Your task to perform on an android device: see tabs open on other devices in the chrome app Image 0: 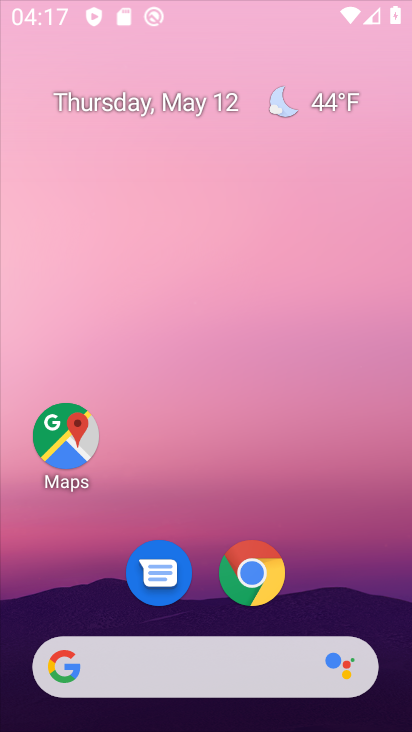
Step 0: press home button
Your task to perform on an android device: see tabs open on other devices in the chrome app Image 1: 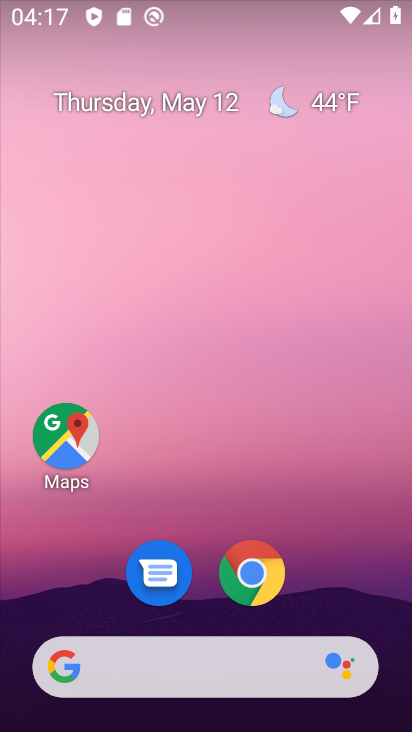
Step 1: click (245, 570)
Your task to perform on an android device: see tabs open on other devices in the chrome app Image 2: 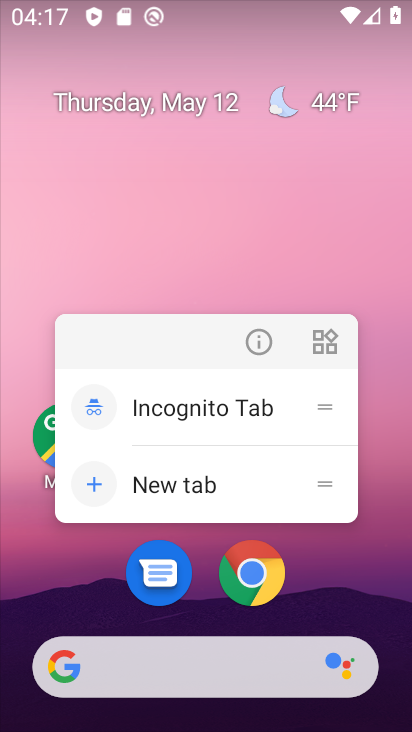
Step 2: click (249, 570)
Your task to perform on an android device: see tabs open on other devices in the chrome app Image 3: 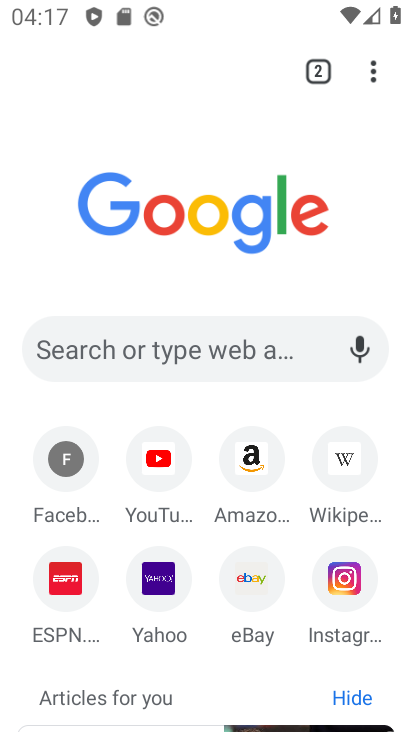
Step 3: click (372, 76)
Your task to perform on an android device: see tabs open on other devices in the chrome app Image 4: 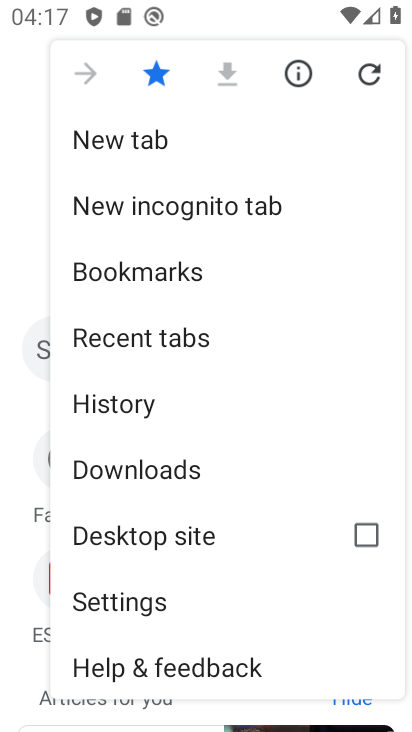
Step 4: click (152, 333)
Your task to perform on an android device: see tabs open on other devices in the chrome app Image 5: 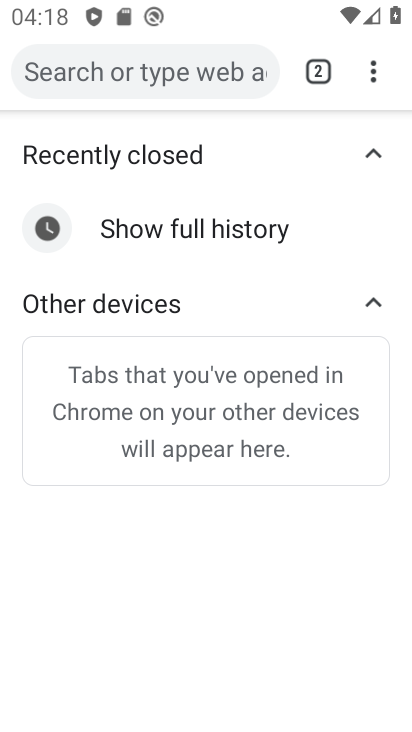
Step 5: task complete